Your task to perform on an android device: Go to Google Image 0: 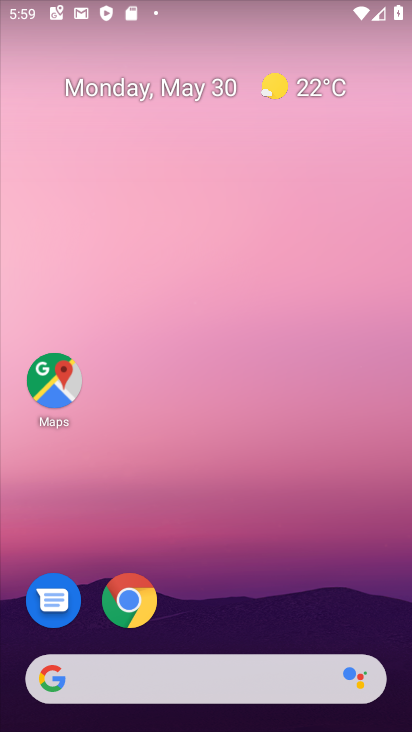
Step 0: press home button
Your task to perform on an android device: Go to Google Image 1: 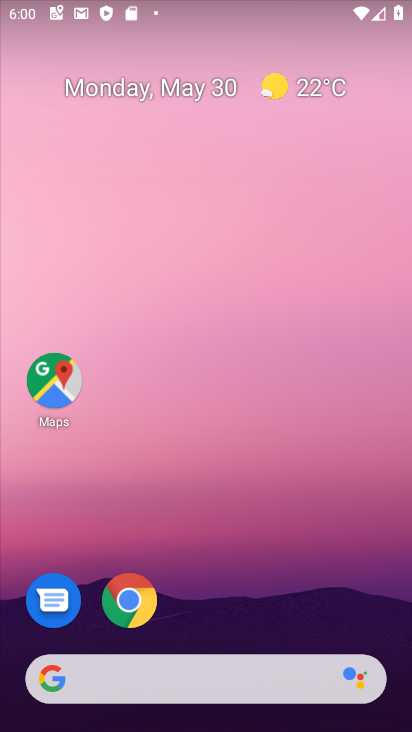
Step 1: click (55, 684)
Your task to perform on an android device: Go to Google Image 2: 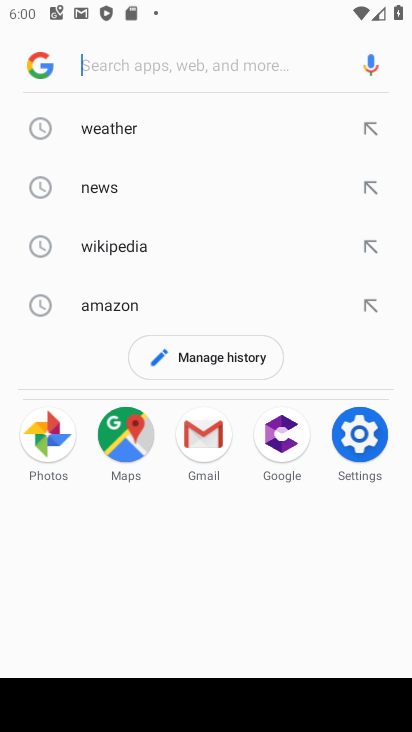
Step 2: task complete